Your task to perform on an android device: turn off wifi Image 0: 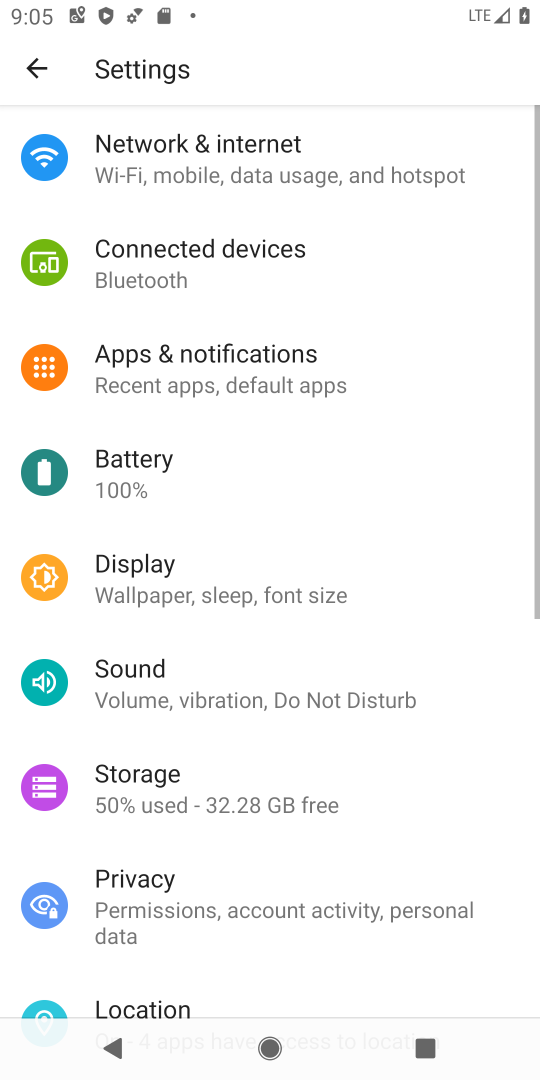
Step 0: press home button
Your task to perform on an android device: turn off wifi Image 1: 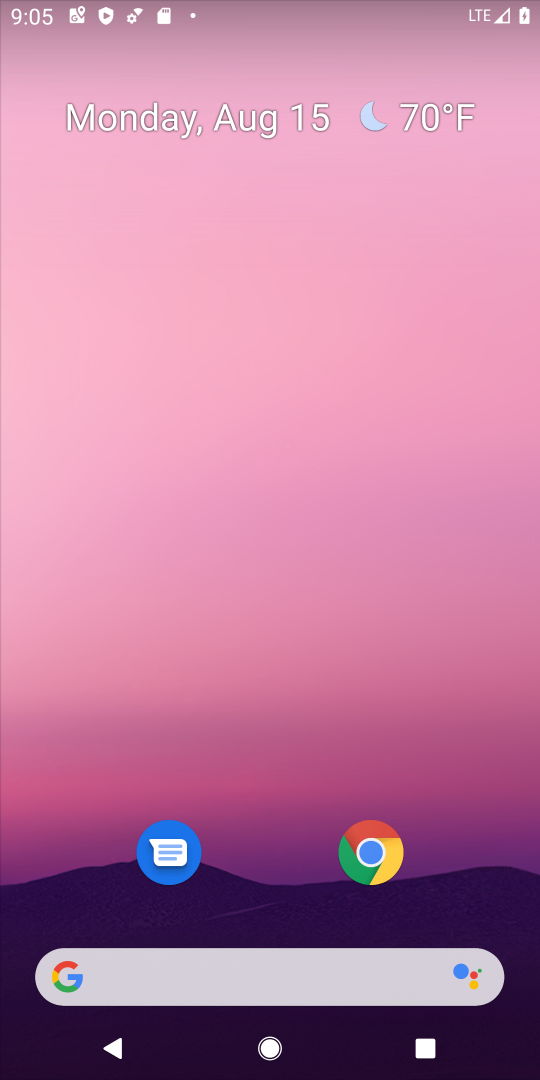
Step 1: drag from (215, 968) to (268, 214)
Your task to perform on an android device: turn off wifi Image 2: 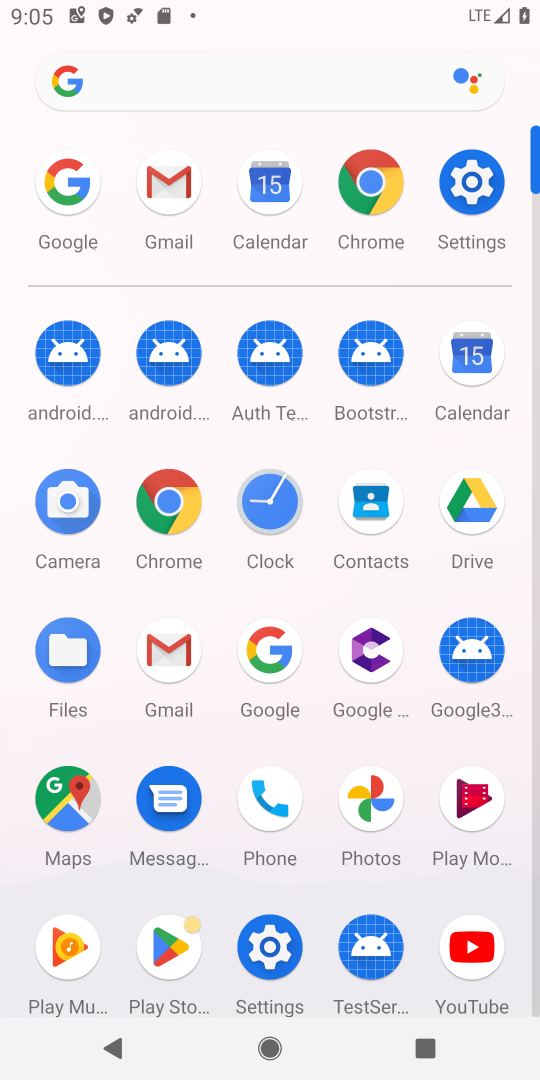
Step 2: click (470, 183)
Your task to perform on an android device: turn off wifi Image 3: 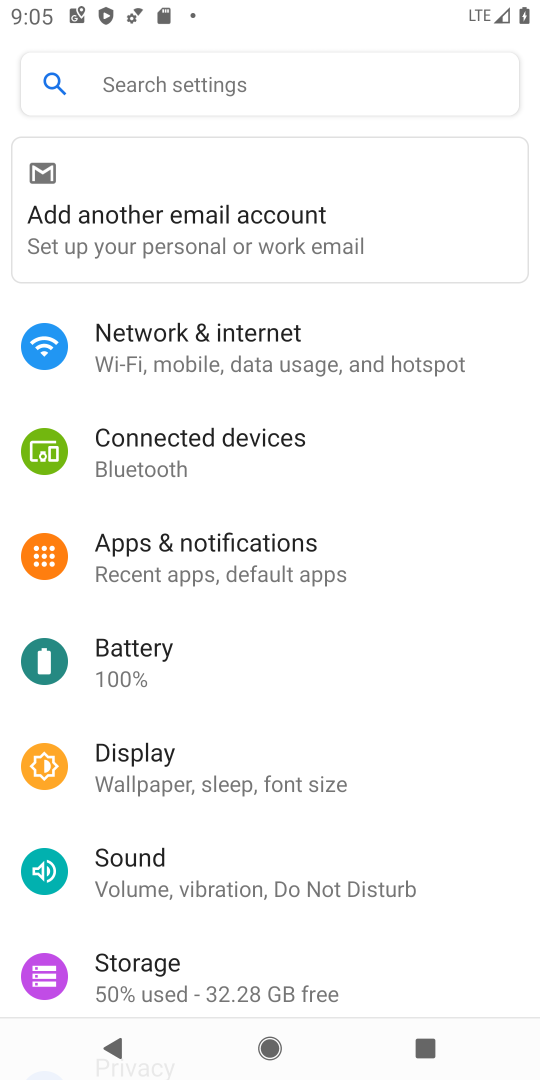
Step 3: click (296, 351)
Your task to perform on an android device: turn off wifi Image 4: 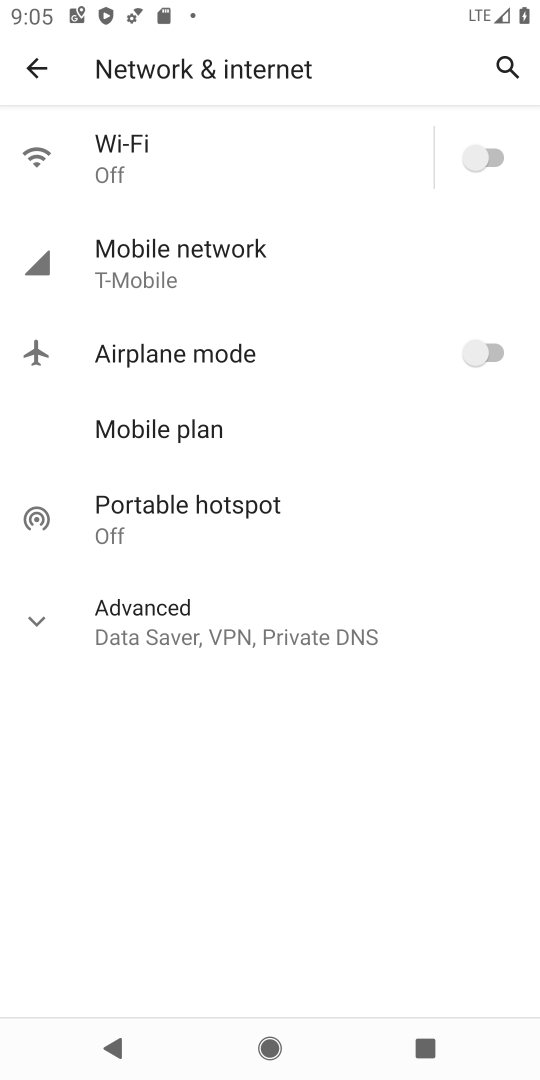
Step 4: task complete